Your task to perform on an android device: turn off picture-in-picture Image 0: 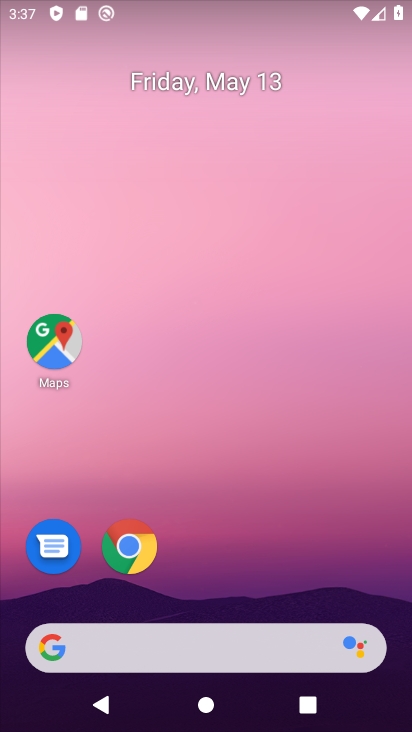
Step 0: drag from (237, 726) to (233, 150)
Your task to perform on an android device: turn off picture-in-picture Image 1: 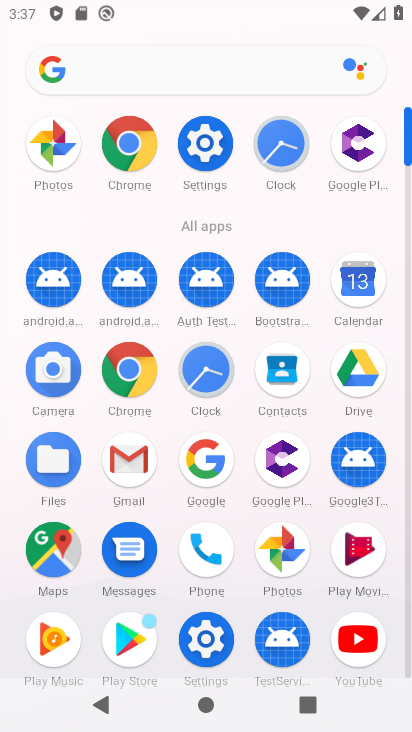
Step 1: click (205, 149)
Your task to perform on an android device: turn off picture-in-picture Image 2: 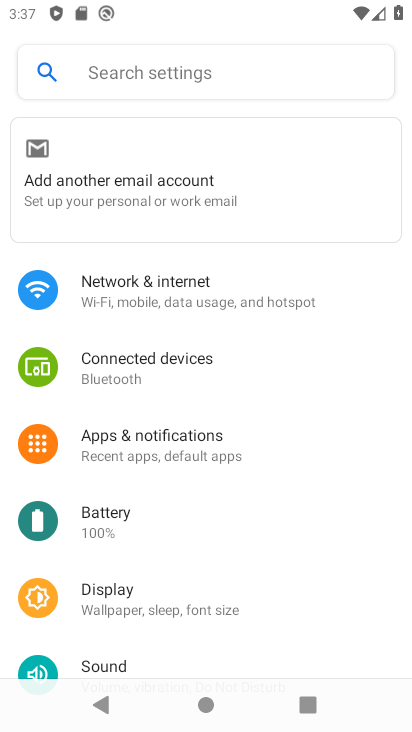
Step 2: drag from (194, 623) to (190, 474)
Your task to perform on an android device: turn off picture-in-picture Image 3: 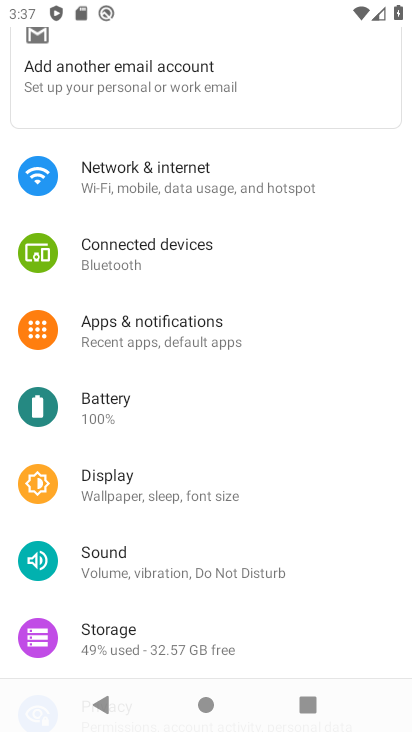
Step 3: click (147, 325)
Your task to perform on an android device: turn off picture-in-picture Image 4: 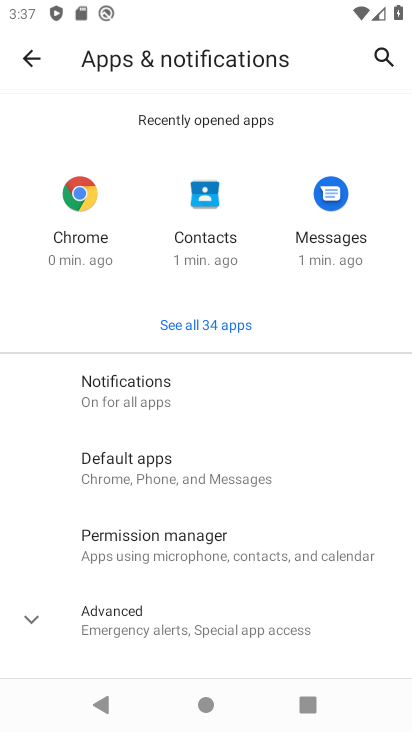
Step 4: click (117, 612)
Your task to perform on an android device: turn off picture-in-picture Image 5: 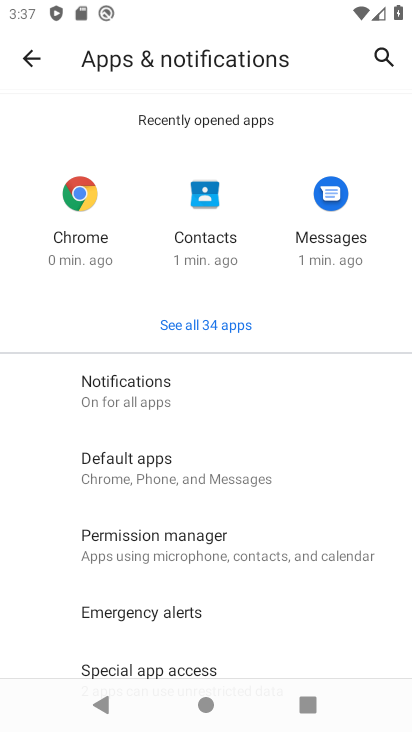
Step 5: drag from (144, 659) to (159, 319)
Your task to perform on an android device: turn off picture-in-picture Image 6: 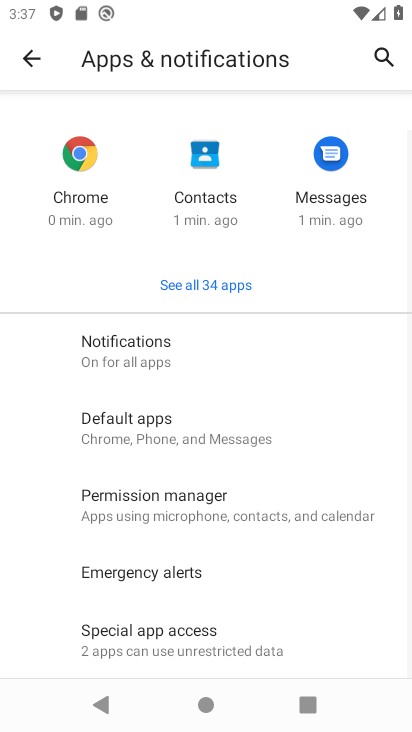
Step 6: click (135, 640)
Your task to perform on an android device: turn off picture-in-picture Image 7: 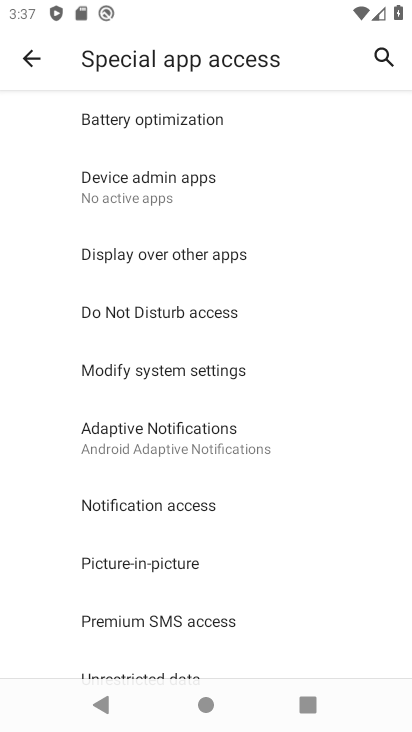
Step 7: click (150, 559)
Your task to perform on an android device: turn off picture-in-picture Image 8: 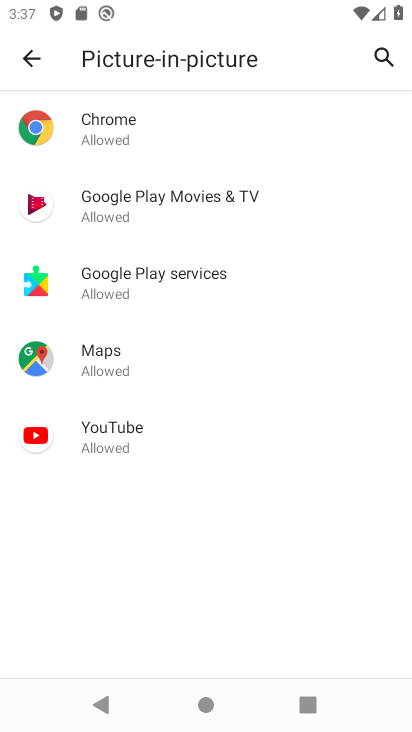
Step 8: click (98, 435)
Your task to perform on an android device: turn off picture-in-picture Image 9: 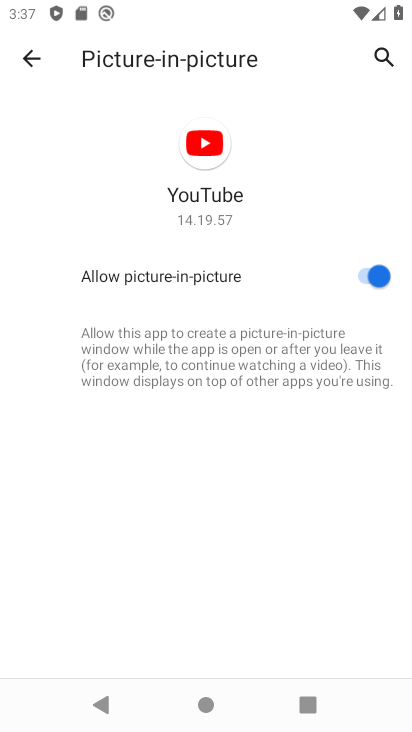
Step 9: click (366, 276)
Your task to perform on an android device: turn off picture-in-picture Image 10: 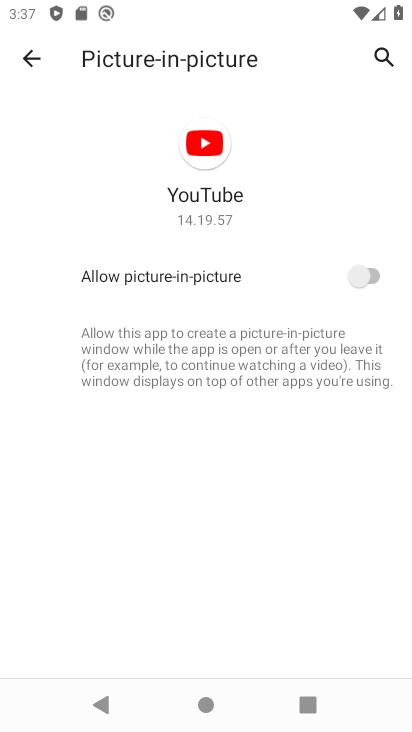
Step 10: task complete